Your task to perform on an android device: turn pop-ups on in chrome Image 0: 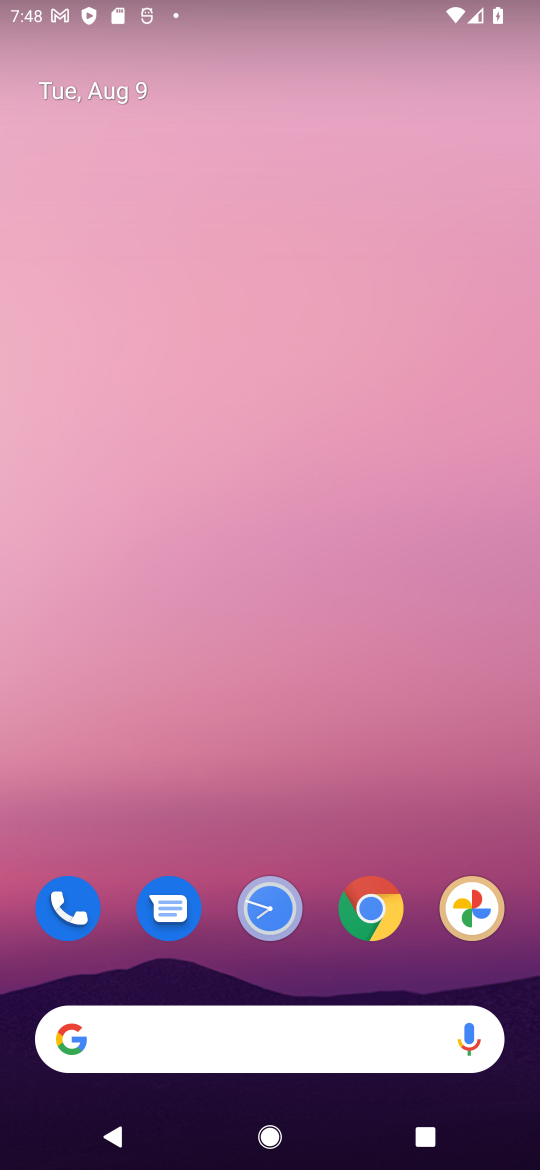
Step 0: click (371, 898)
Your task to perform on an android device: turn pop-ups on in chrome Image 1: 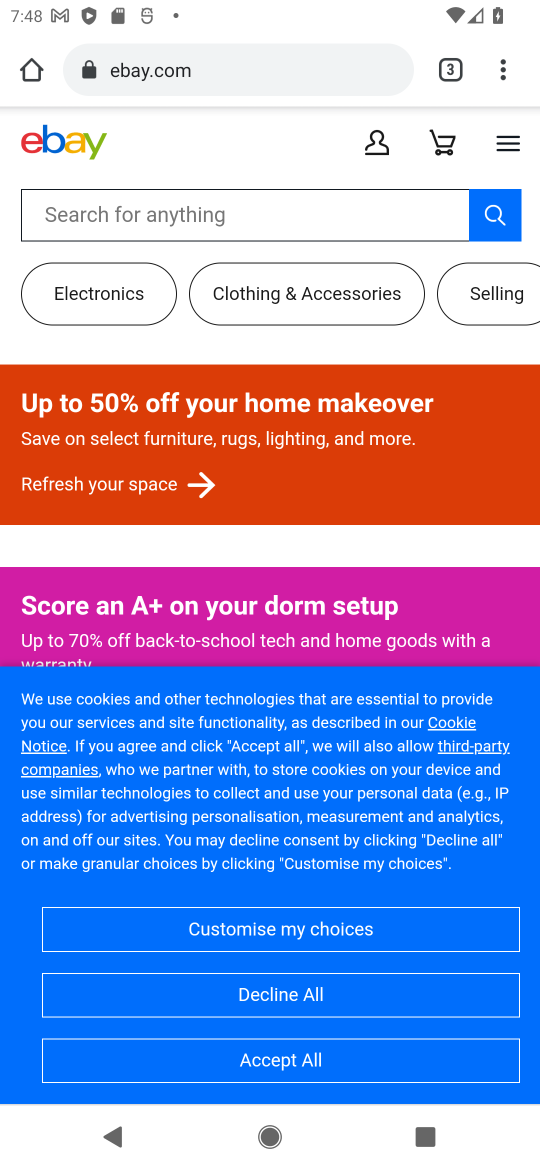
Step 1: click (508, 78)
Your task to perform on an android device: turn pop-ups on in chrome Image 2: 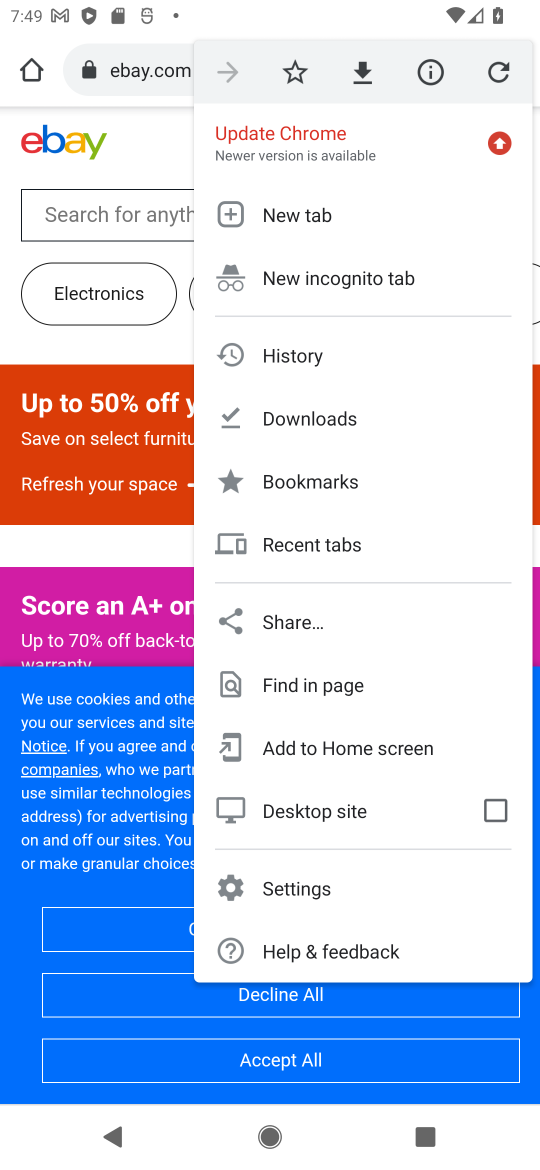
Step 2: click (303, 886)
Your task to perform on an android device: turn pop-ups on in chrome Image 3: 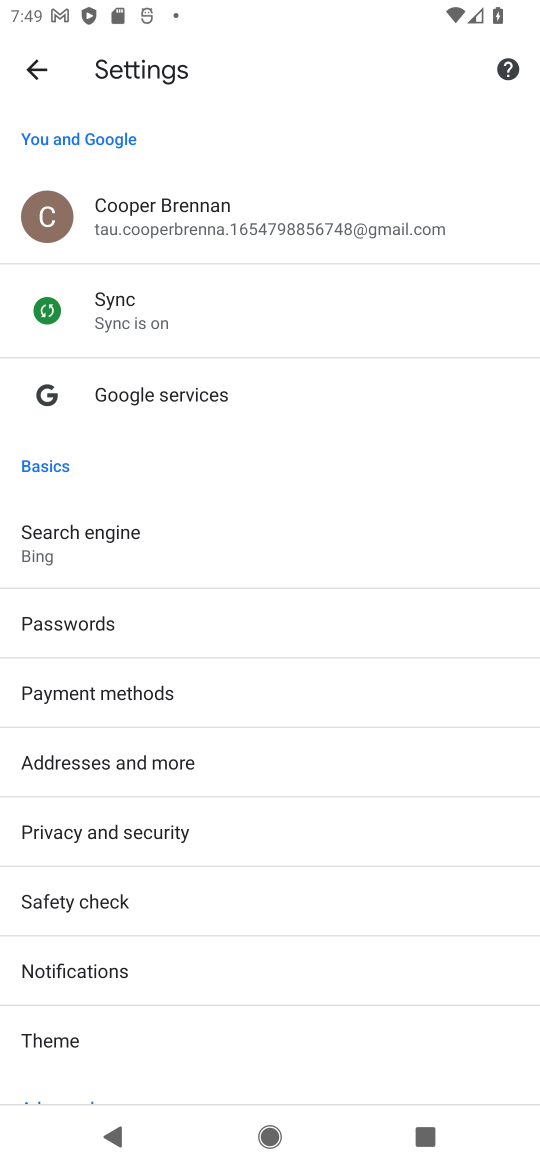
Step 3: drag from (49, 1052) to (96, 564)
Your task to perform on an android device: turn pop-ups on in chrome Image 4: 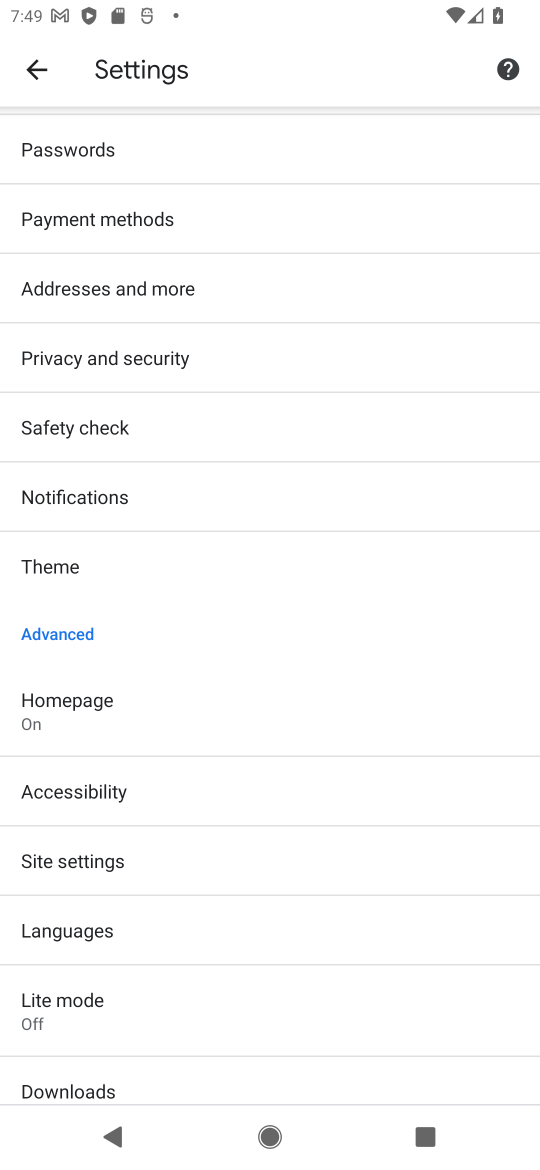
Step 4: click (107, 859)
Your task to perform on an android device: turn pop-ups on in chrome Image 5: 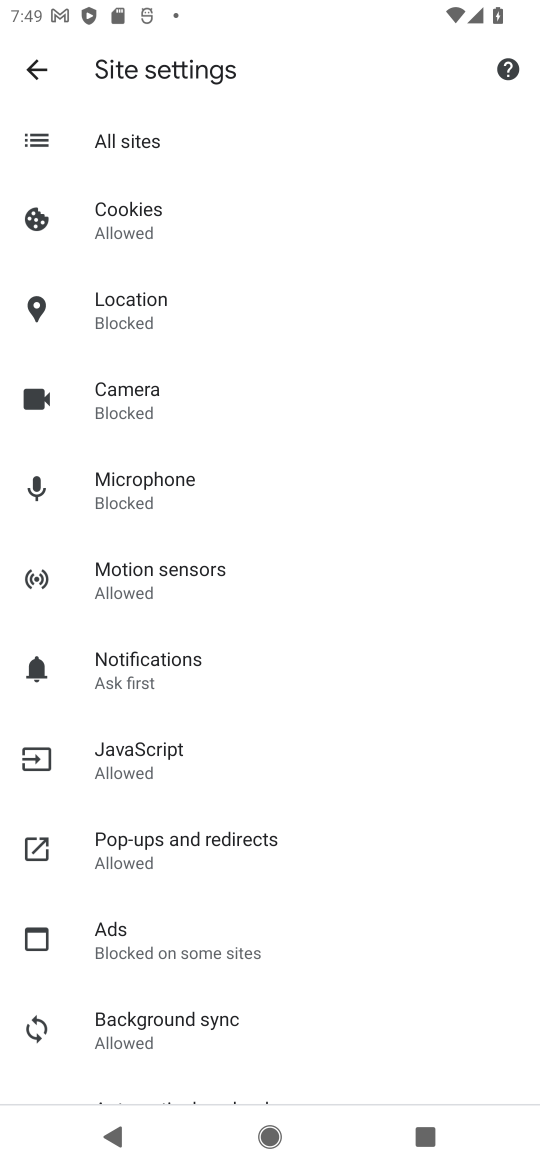
Step 5: drag from (123, 1013) to (128, 539)
Your task to perform on an android device: turn pop-ups on in chrome Image 6: 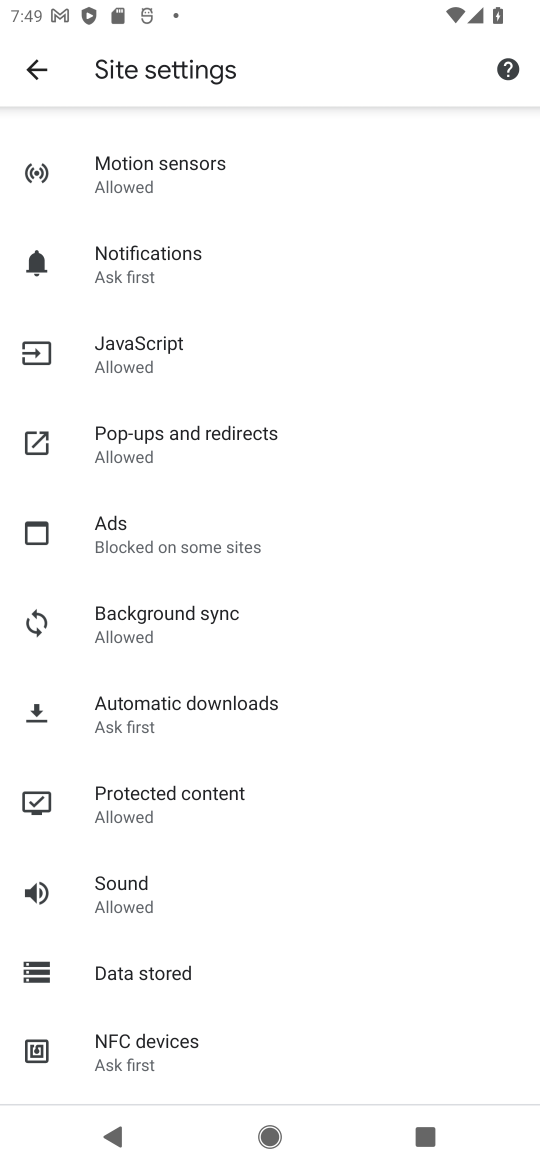
Step 6: drag from (143, 1036) to (144, 605)
Your task to perform on an android device: turn pop-ups on in chrome Image 7: 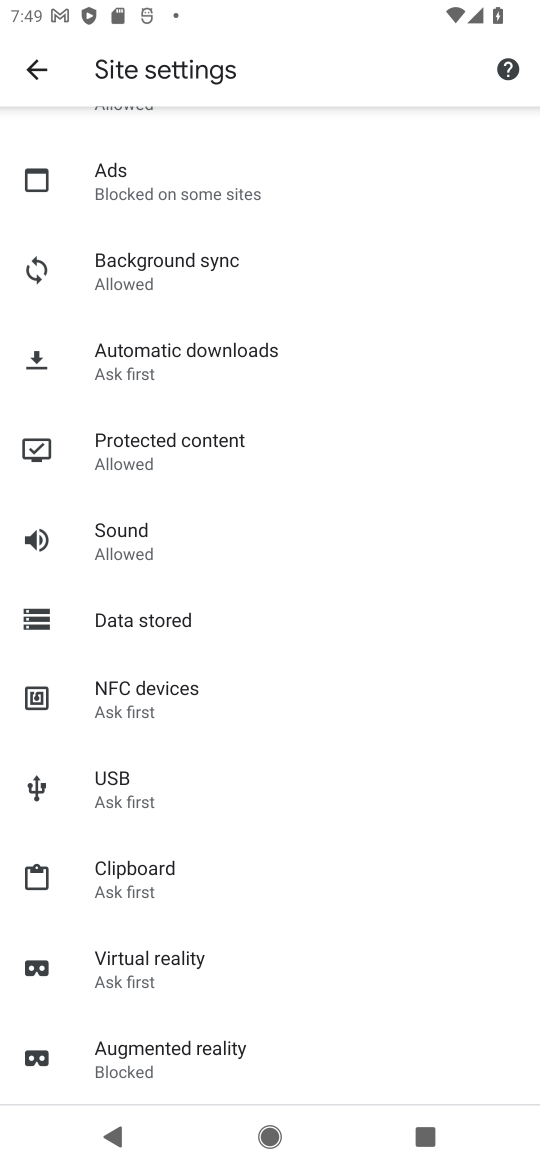
Step 7: drag from (194, 234) to (184, 553)
Your task to perform on an android device: turn pop-ups on in chrome Image 8: 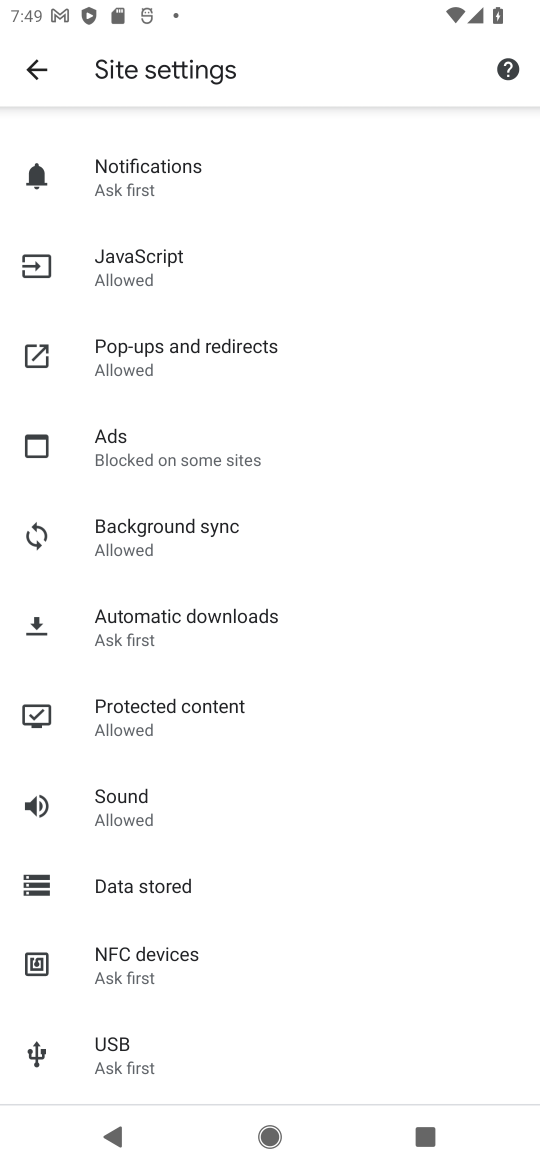
Step 8: click (157, 359)
Your task to perform on an android device: turn pop-ups on in chrome Image 9: 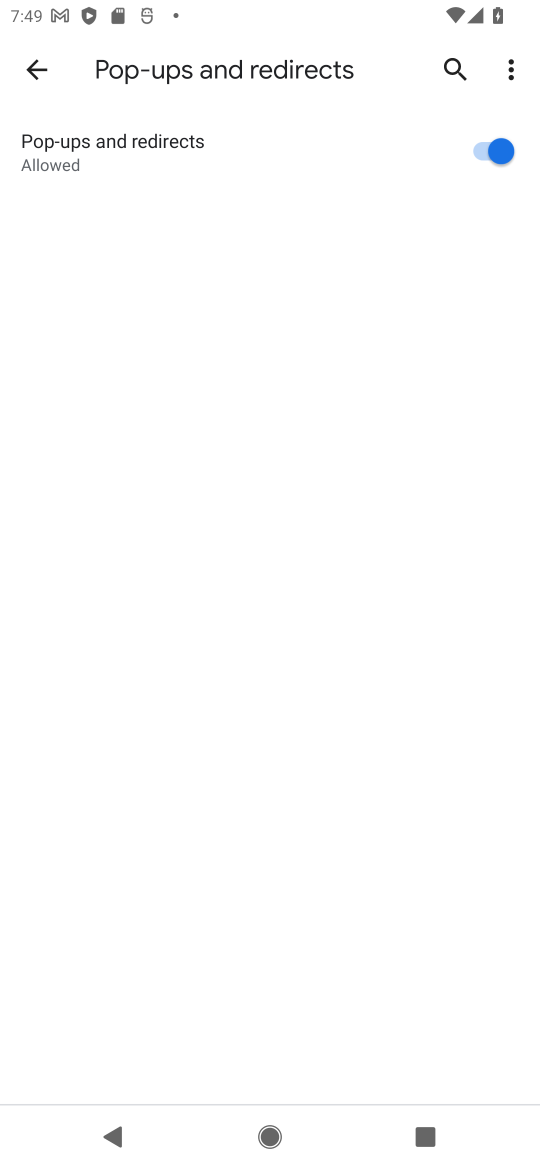
Step 9: task complete